Your task to perform on an android device: What is the recent news? Image 0: 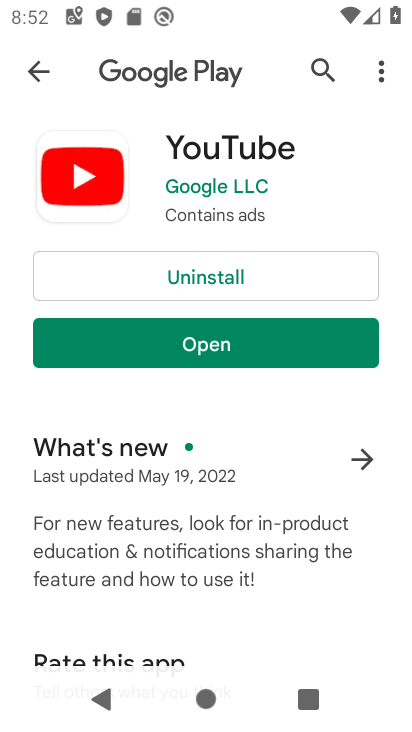
Step 0: press home button
Your task to perform on an android device: What is the recent news? Image 1: 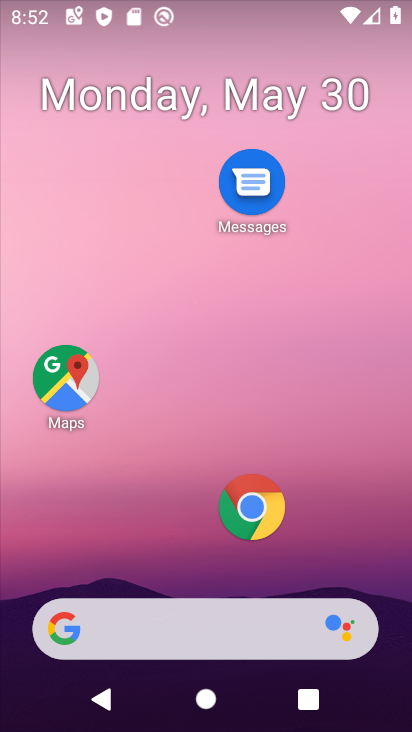
Step 1: drag from (200, 563) to (206, 7)
Your task to perform on an android device: What is the recent news? Image 2: 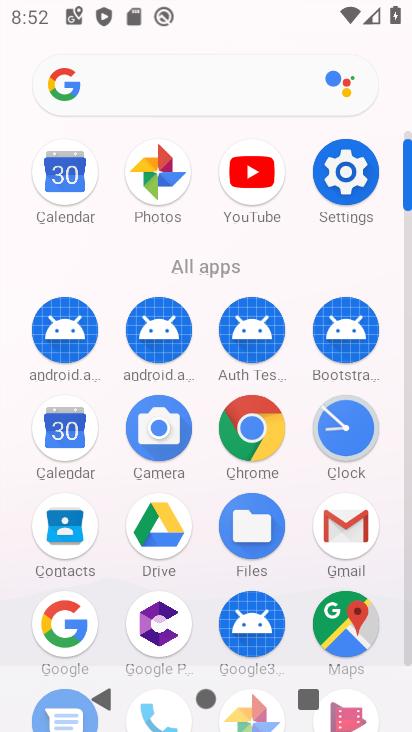
Step 2: drag from (204, 563) to (237, 305)
Your task to perform on an android device: What is the recent news? Image 3: 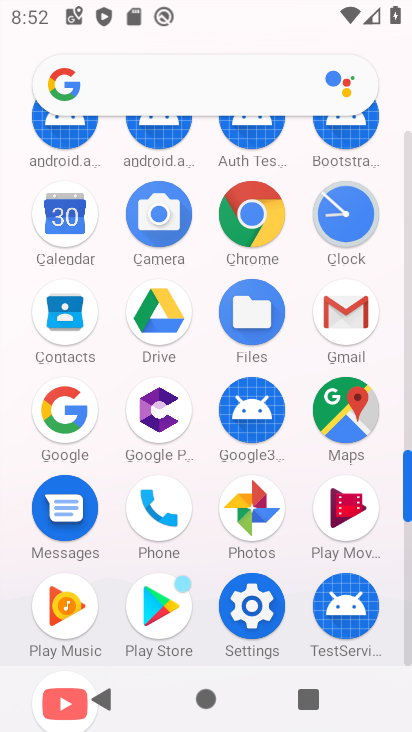
Step 3: click (65, 428)
Your task to perform on an android device: What is the recent news? Image 4: 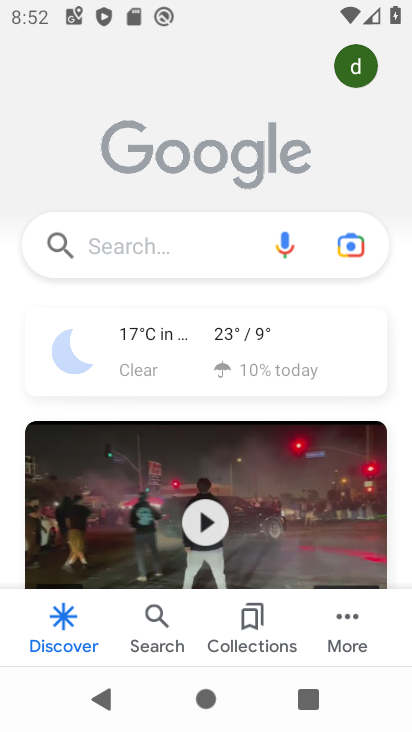
Step 4: click (145, 239)
Your task to perform on an android device: What is the recent news? Image 5: 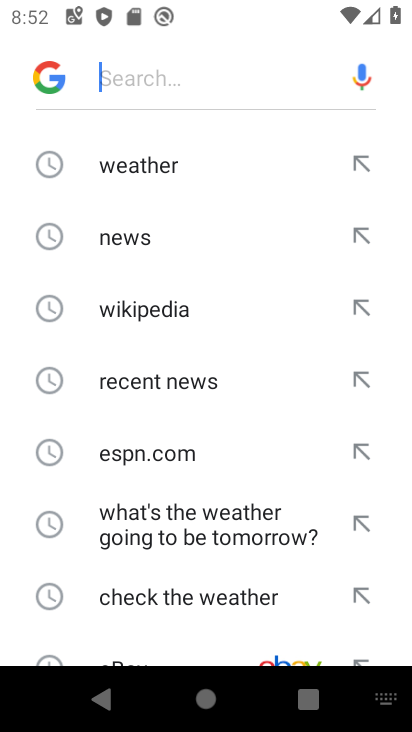
Step 5: click (174, 390)
Your task to perform on an android device: What is the recent news? Image 6: 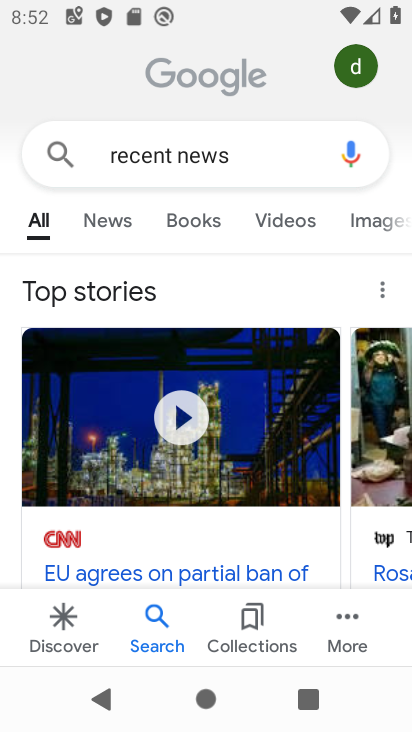
Step 6: task complete